Your task to perform on an android device: empty trash in google photos Image 0: 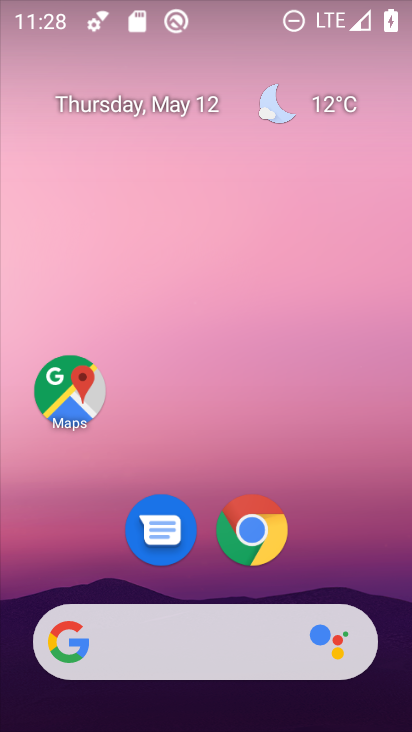
Step 0: drag from (203, 643) to (346, 66)
Your task to perform on an android device: empty trash in google photos Image 1: 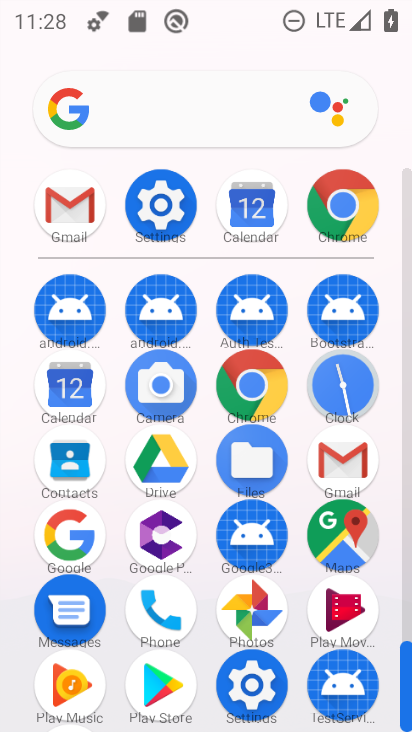
Step 1: click (258, 600)
Your task to perform on an android device: empty trash in google photos Image 2: 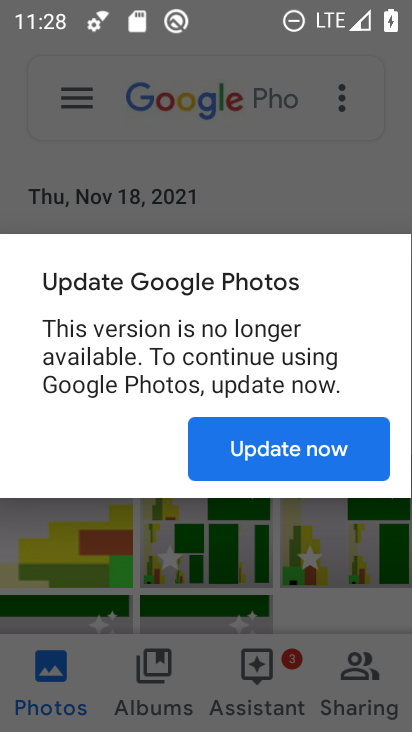
Step 2: click (293, 459)
Your task to perform on an android device: empty trash in google photos Image 3: 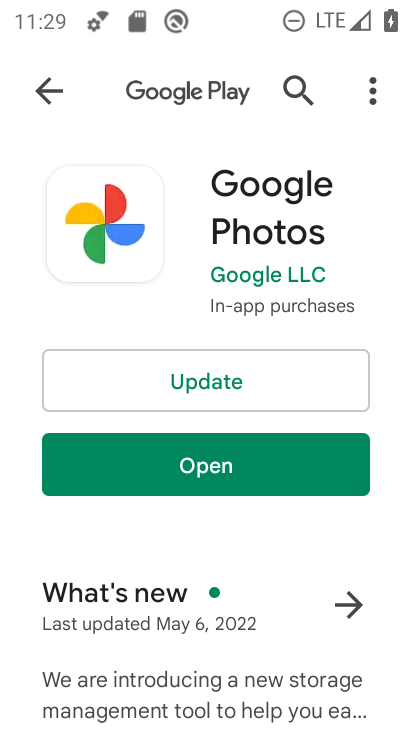
Step 3: click (270, 466)
Your task to perform on an android device: empty trash in google photos Image 4: 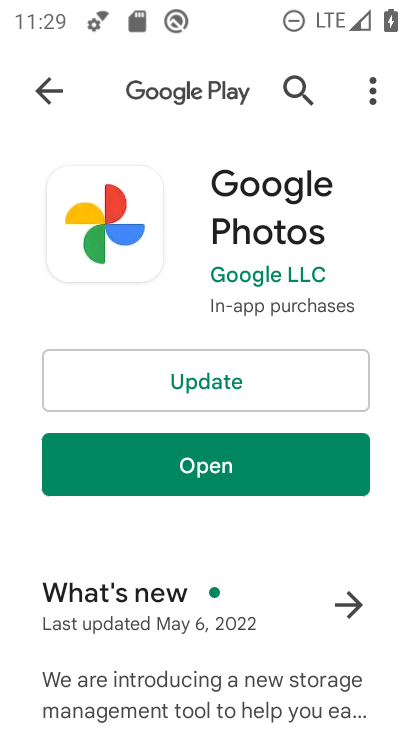
Step 4: click (186, 464)
Your task to perform on an android device: empty trash in google photos Image 5: 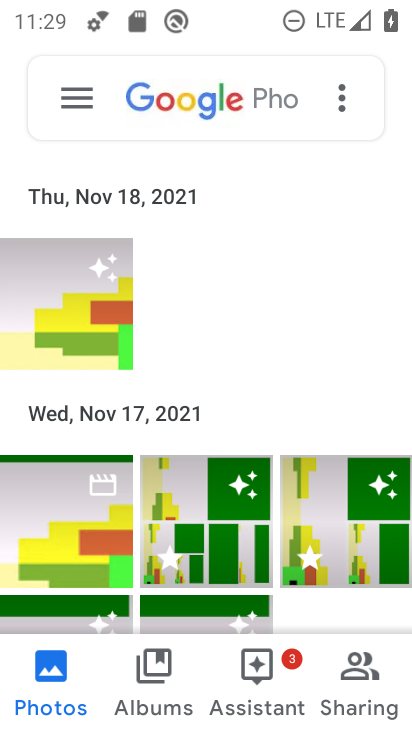
Step 5: click (83, 98)
Your task to perform on an android device: empty trash in google photos Image 6: 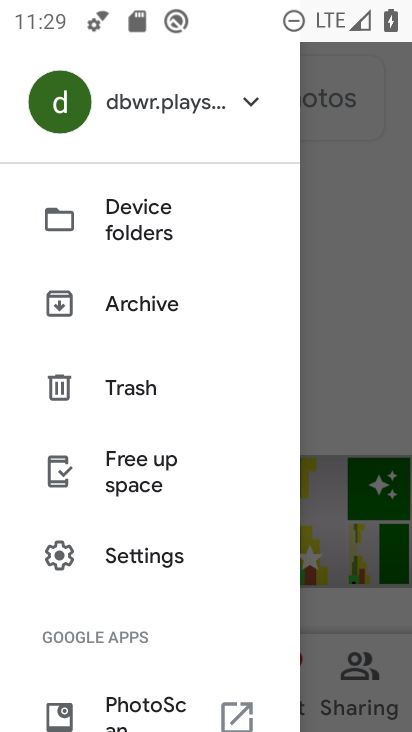
Step 6: click (144, 379)
Your task to perform on an android device: empty trash in google photos Image 7: 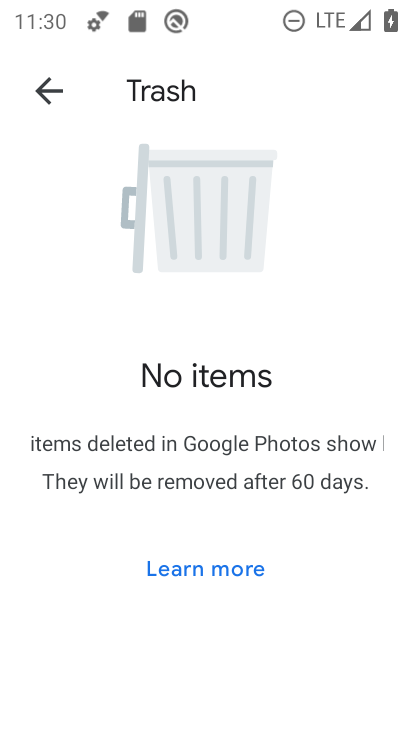
Step 7: task complete